Your task to perform on an android device: Open Wikipedia Image 0: 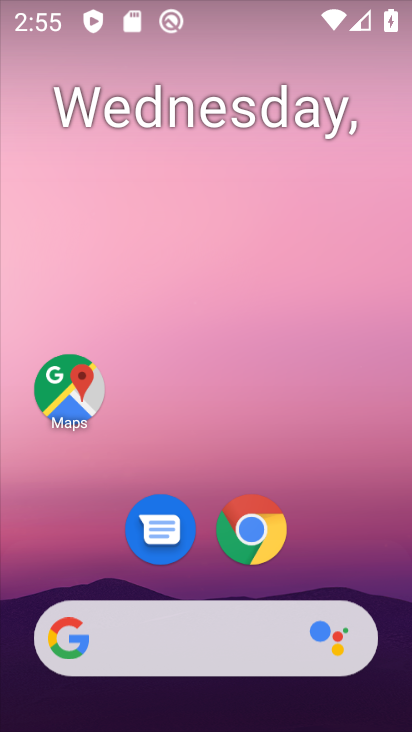
Step 0: click (213, 632)
Your task to perform on an android device: Open Wikipedia Image 1: 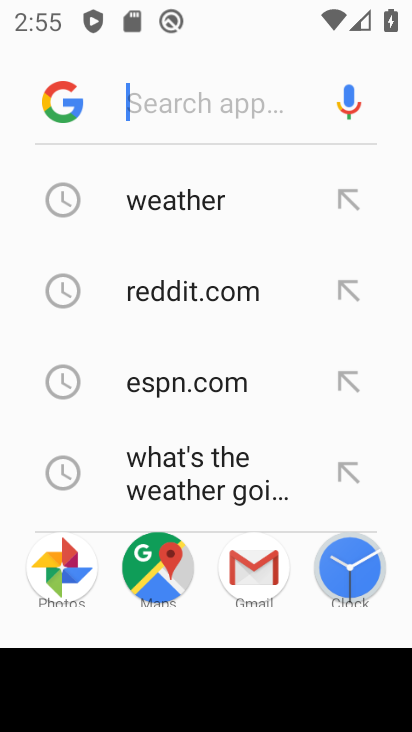
Step 1: type "Wikipedia"
Your task to perform on an android device: Open Wikipedia Image 2: 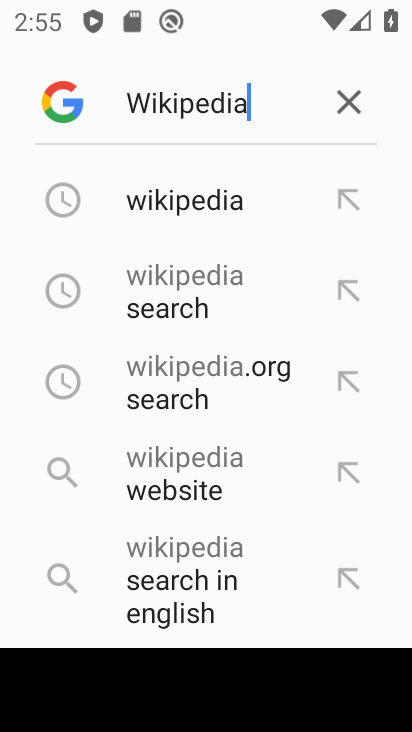
Step 2: click (182, 208)
Your task to perform on an android device: Open Wikipedia Image 3: 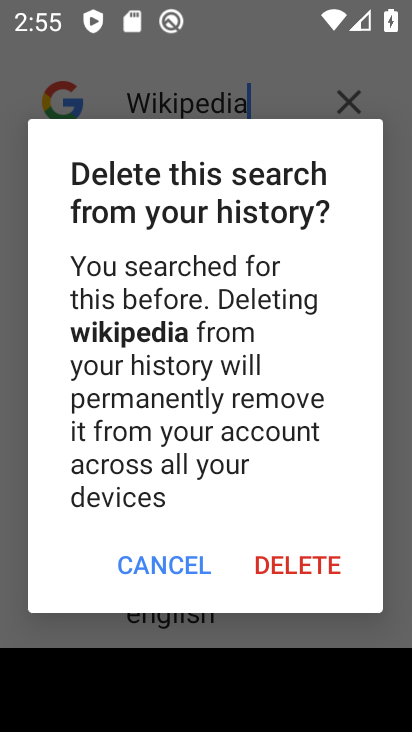
Step 3: click (168, 559)
Your task to perform on an android device: Open Wikipedia Image 4: 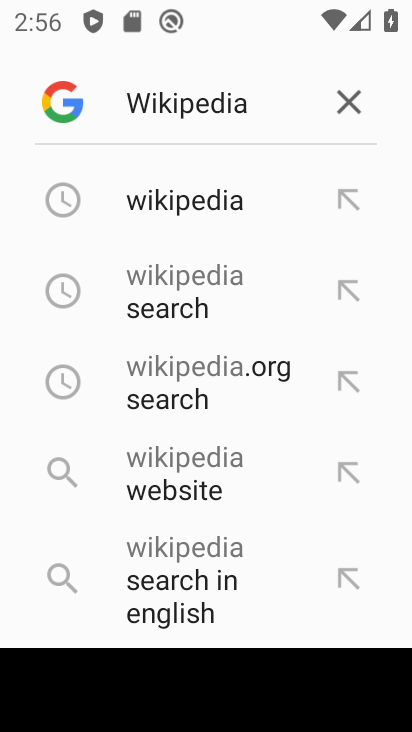
Step 4: click (177, 211)
Your task to perform on an android device: Open Wikipedia Image 5: 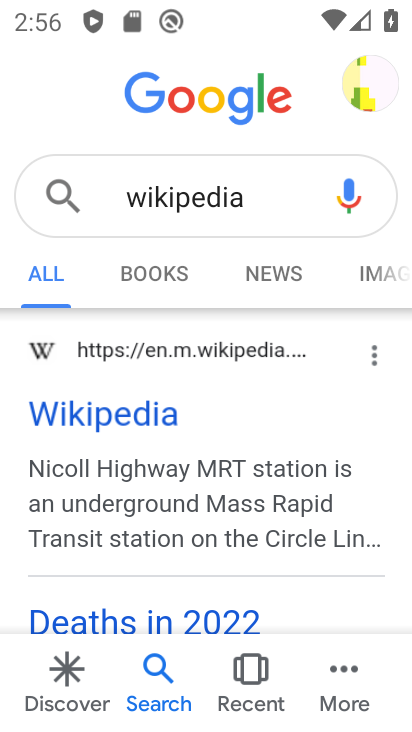
Step 5: click (145, 405)
Your task to perform on an android device: Open Wikipedia Image 6: 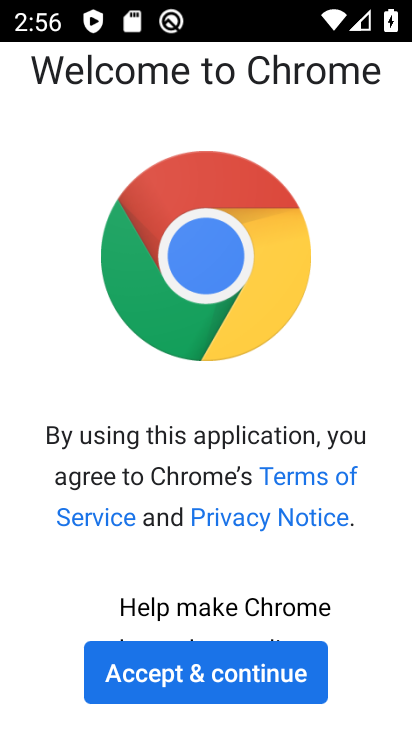
Step 6: click (233, 669)
Your task to perform on an android device: Open Wikipedia Image 7: 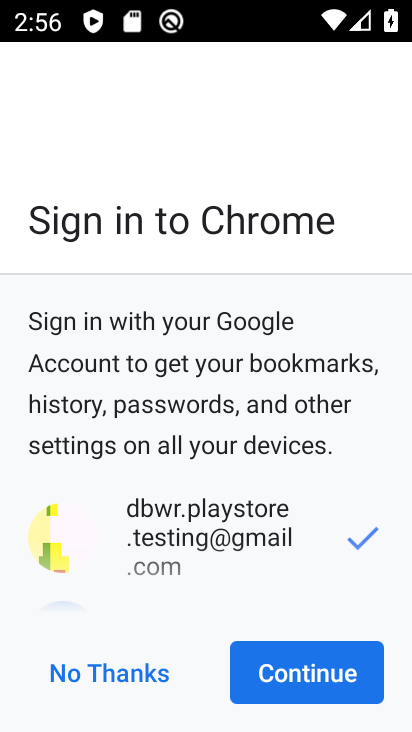
Step 7: click (286, 666)
Your task to perform on an android device: Open Wikipedia Image 8: 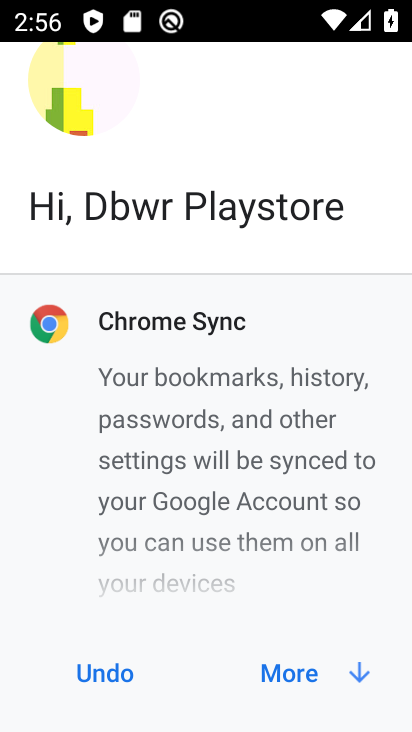
Step 8: click (286, 666)
Your task to perform on an android device: Open Wikipedia Image 9: 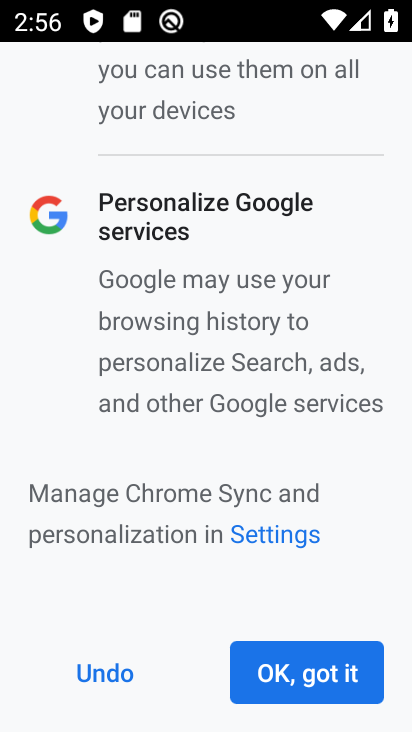
Step 9: click (286, 666)
Your task to perform on an android device: Open Wikipedia Image 10: 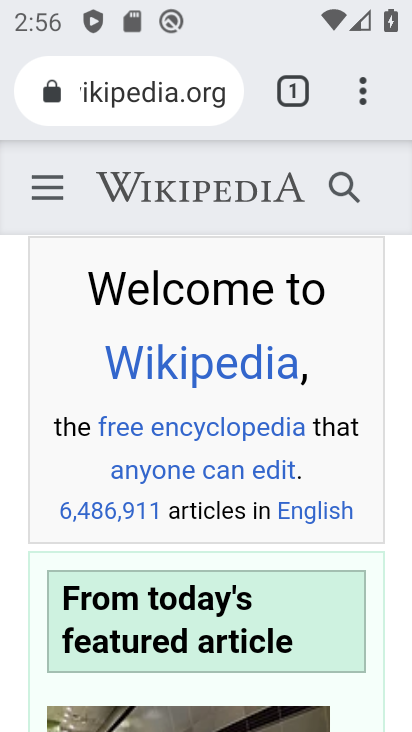
Step 10: task complete